Your task to perform on an android device: change your default location settings in chrome Image 0: 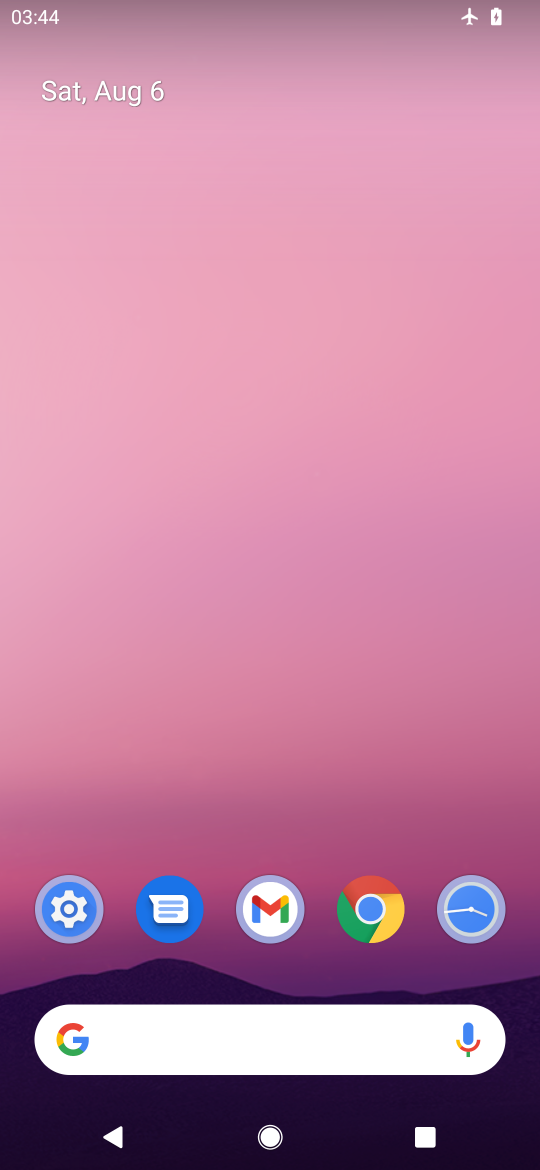
Step 0: click (373, 927)
Your task to perform on an android device: change your default location settings in chrome Image 1: 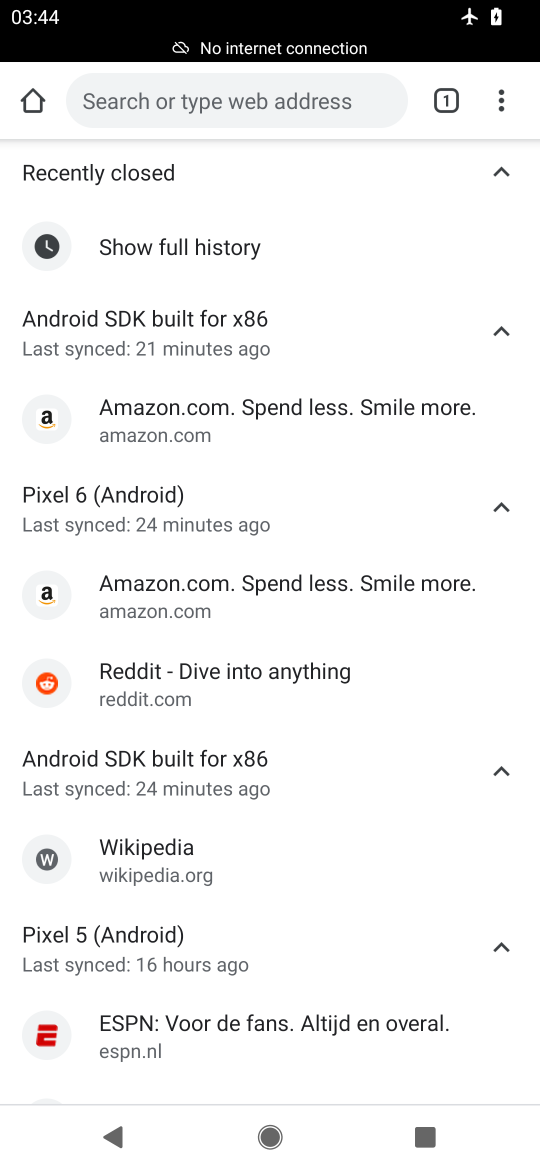
Step 1: drag from (495, 113) to (287, 764)
Your task to perform on an android device: change your default location settings in chrome Image 2: 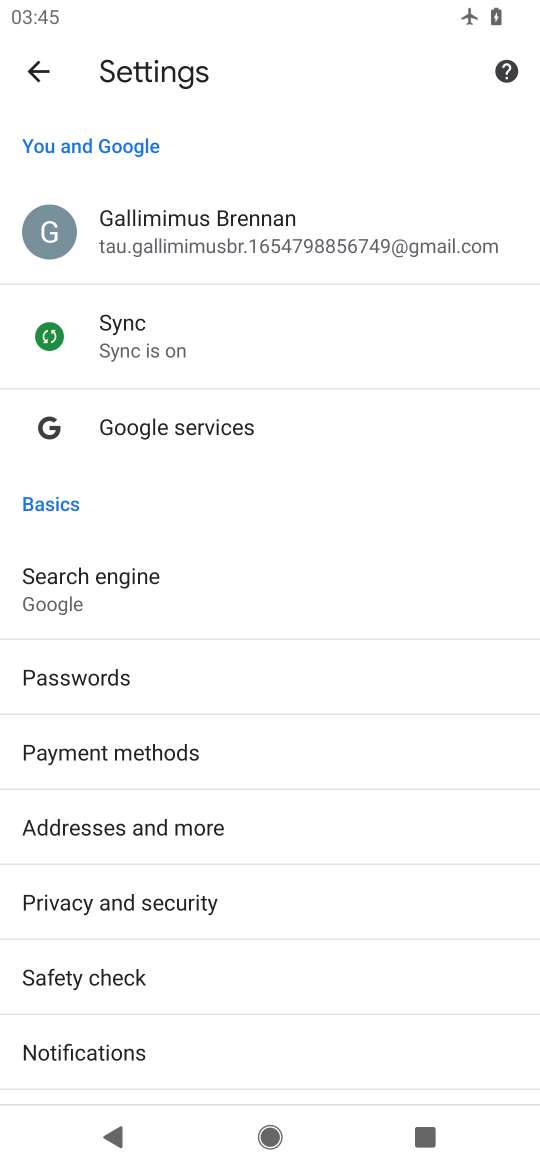
Step 2: drag from (201, 1082) to (348, 284)
Your task to perform on an android device: change your default location settings in chrome Image 3: 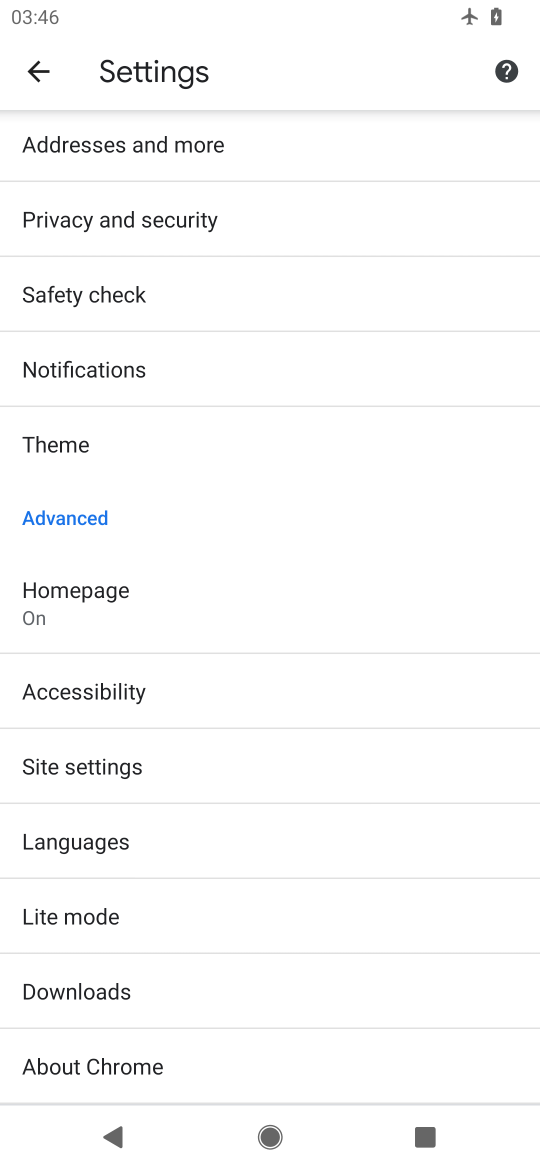
Step 3: drag from (251, 454) to (191, 1169)
Your task to perform on an android device: change your default location settings in chrome Image 4: 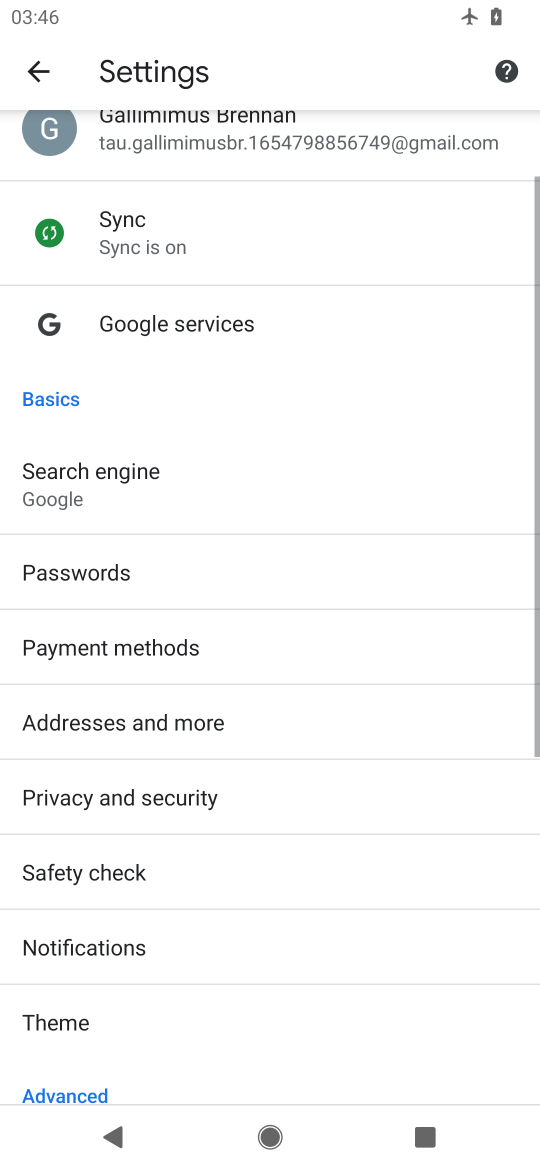
Step 4: click (38, 65)
Your task to perform on an android device: change your default location settings in chrome Image 5: 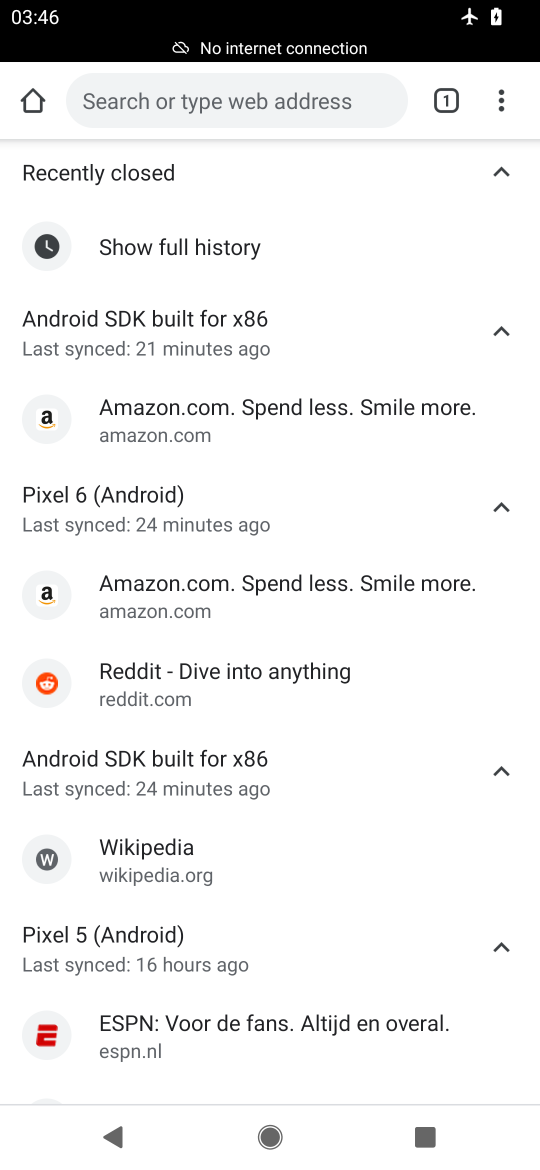
Step 5: drag from (508, 106) to (263, 761)
Your task to perform on an android device: change your default location settings in chrome Image 6: 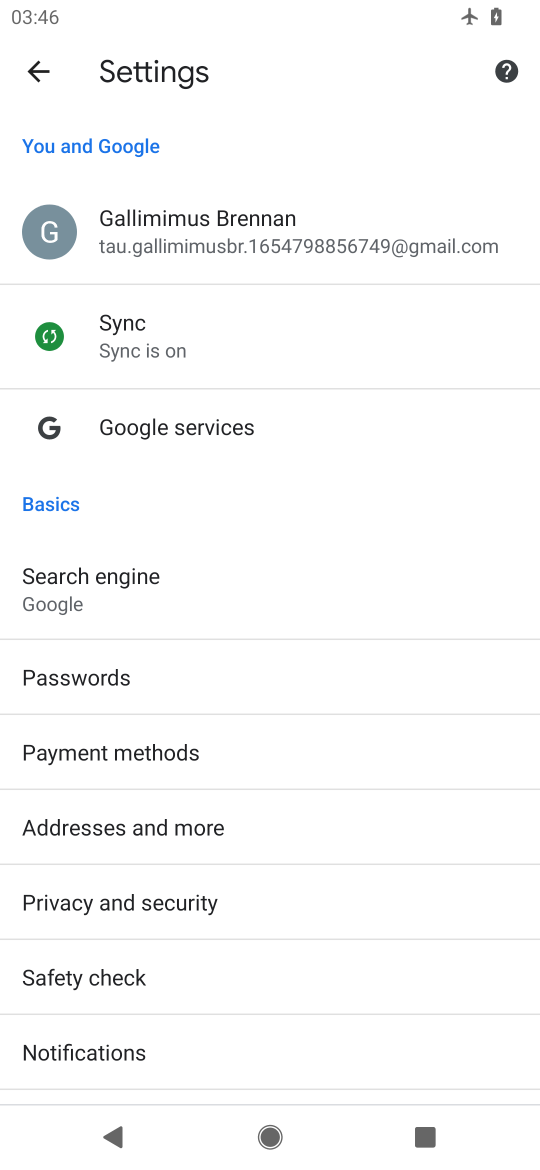
Step 6: drag from (129, 1022) to (377, 89)
Your task to perform on an android device: change your default location settings in chrome Image 7: 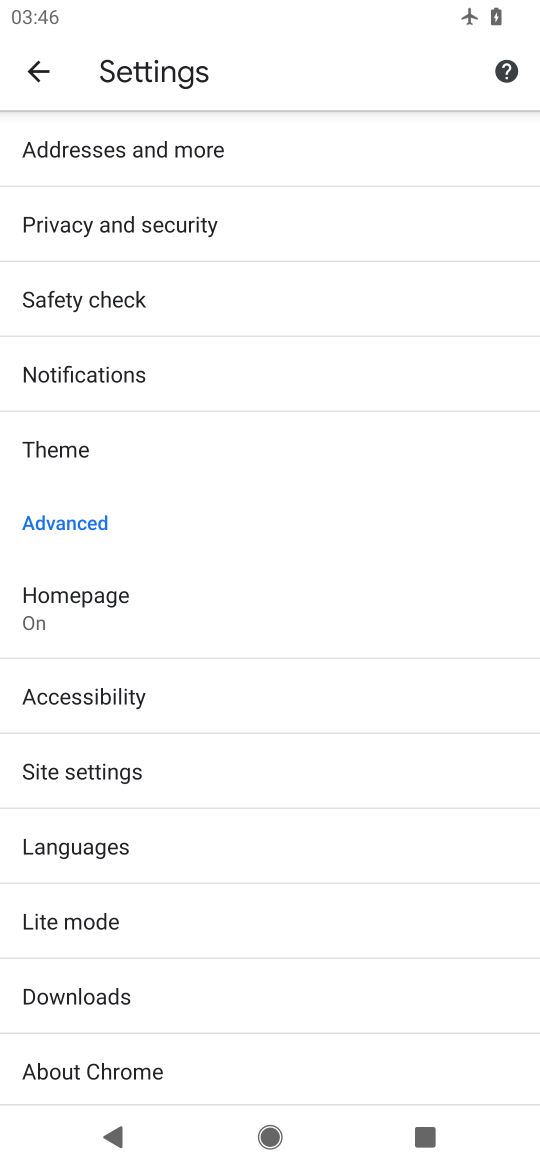
Step 7: click (83, 778)
Your task to perform on an android device: change your default location settings in chrome Image 8: 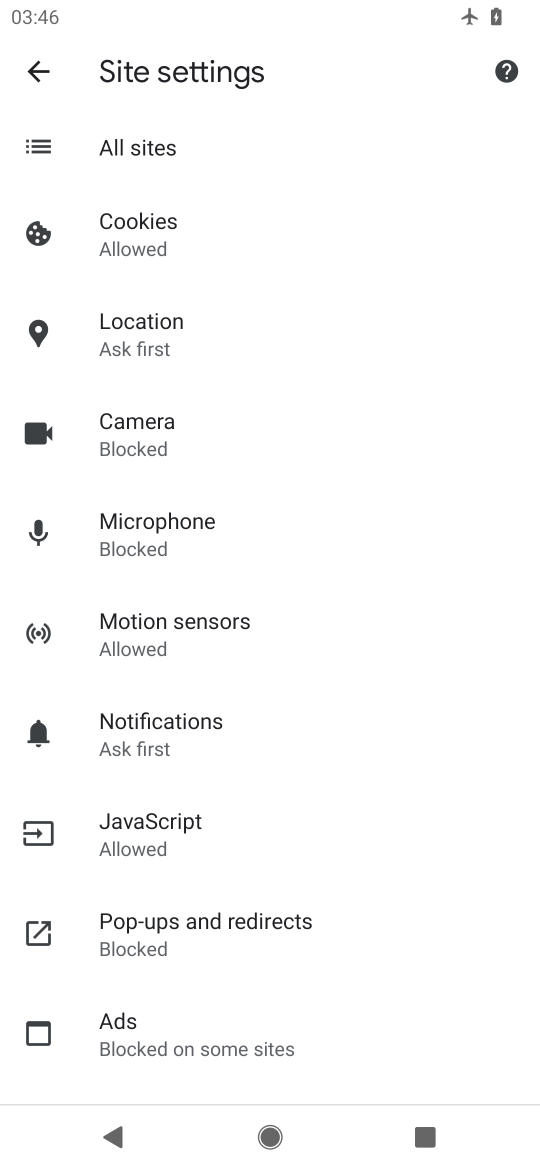
Step 8: click (181, 304)
Your task to perform on an android device: change your default location settings in chrome Image 9: 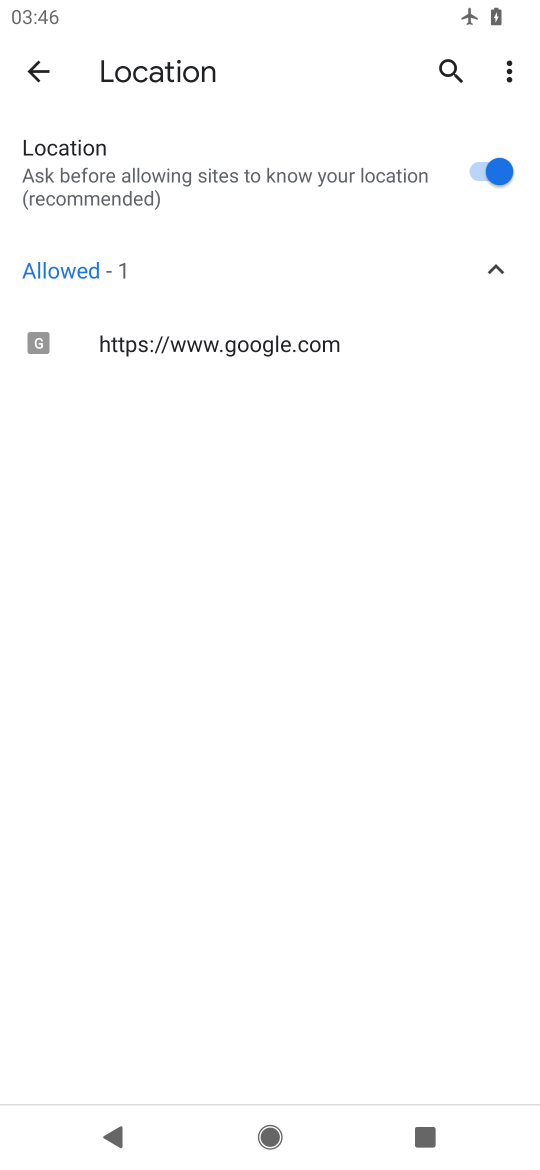
Step 9: click (499, 168)
Your task to perform on an android device: change your default location settings in chrome Image 10: 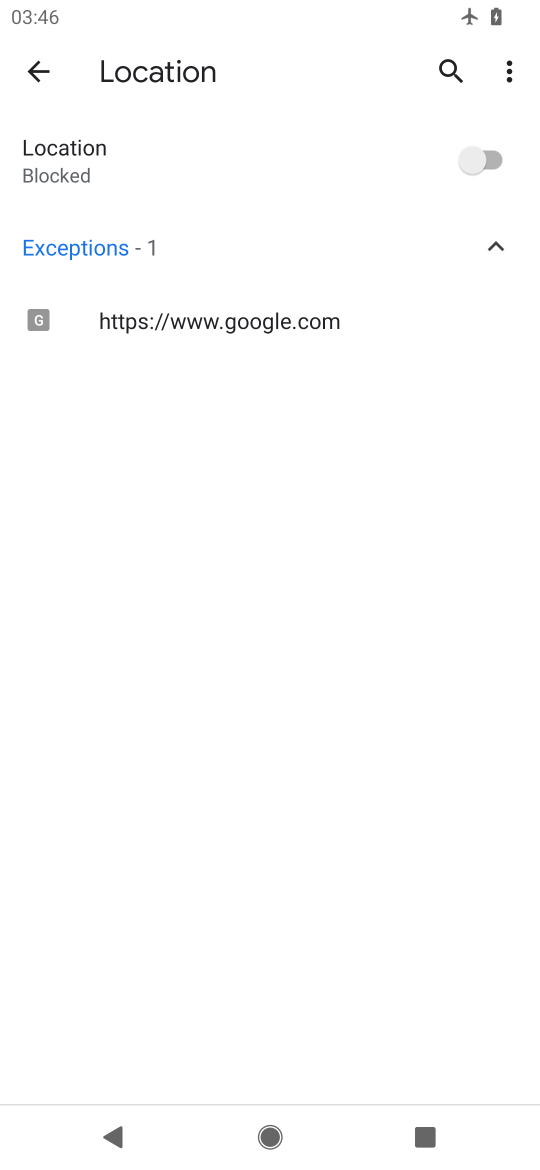
Step 10: task complete